Your task to perform on an android device: Open maps Image 0: 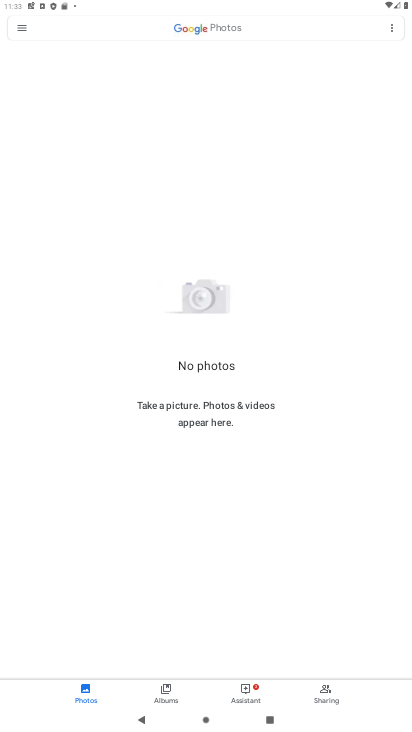
Step 0: press home button
Your task to perform on an android device: Open maps Image 1: 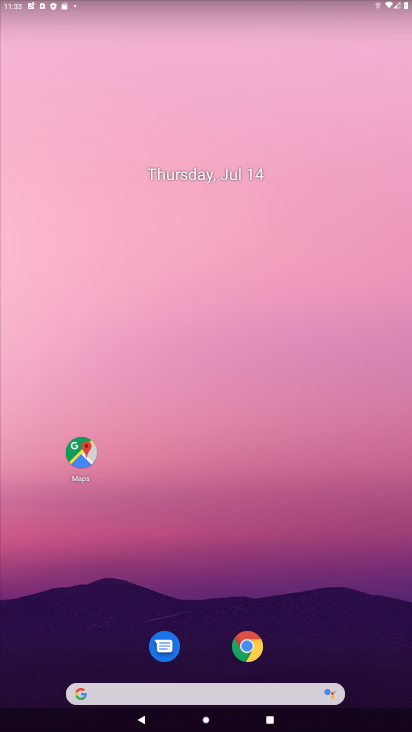
Step 1: click (80, 434)
Your task to perform on an android device: Open maps Image 2: 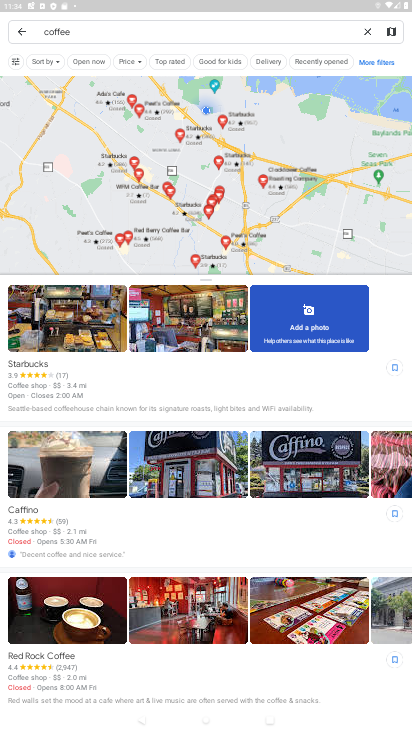
Step 2: task complete